Your task to perform on an android device: Do I have any events tomorrow? Image 0: 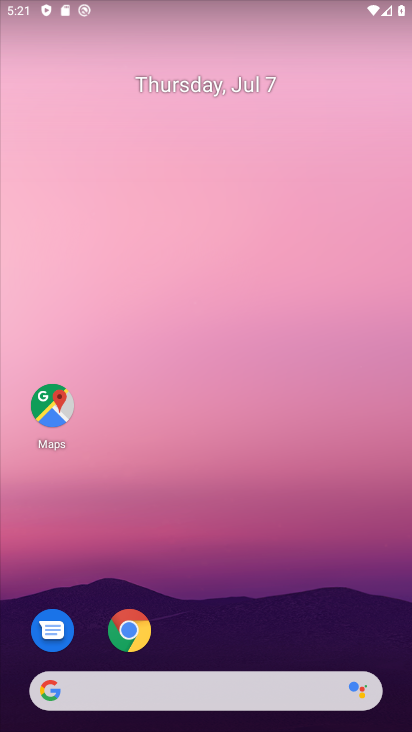
Step 0: press home button
Your task to perform on an android device: Do I have any events tomorrow? Image 1: 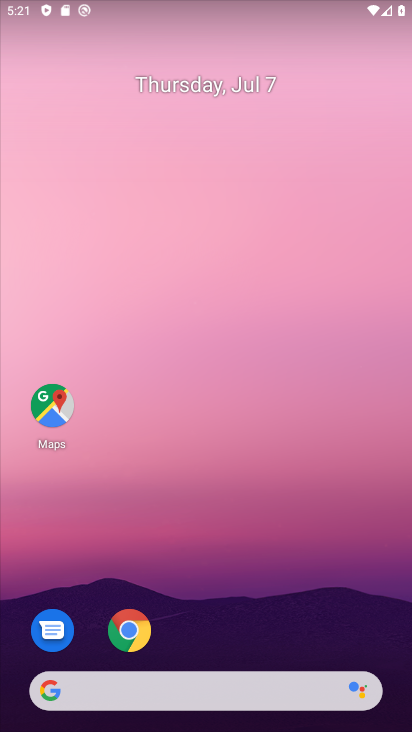
Step 1: drag from (203, 638) to (173, 53)
Your task to perform on an android device: Do I have any events tomorrow? Image 2: 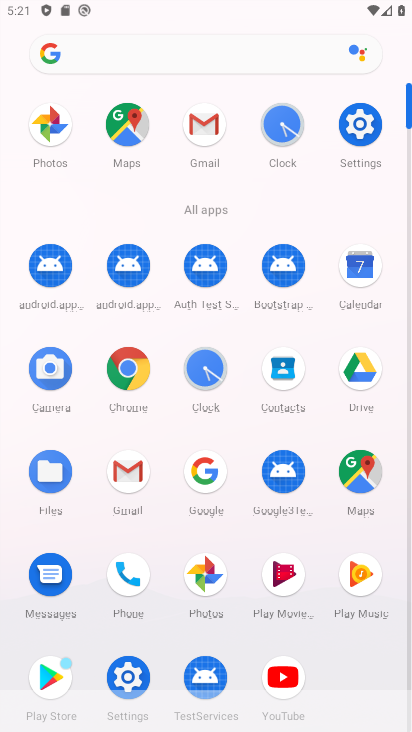
Step 2: click (353, 262)
Your task to perform on an android device: Do I have any events tomorrow? Image 3: 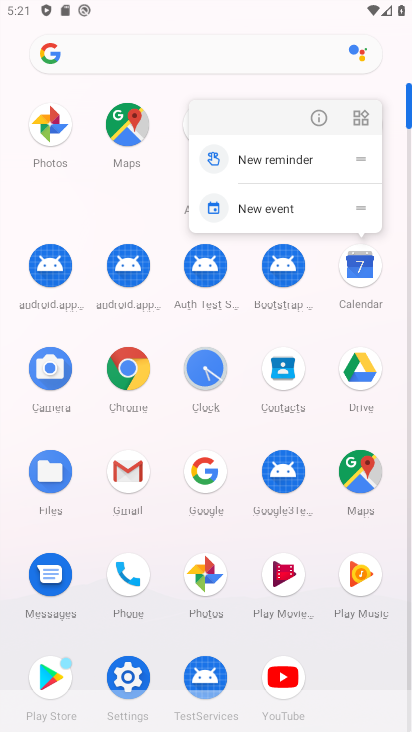
Step 3: click (358, 275)
Your task to perform on an android device: Do I have any events tomorrow? Image 4: 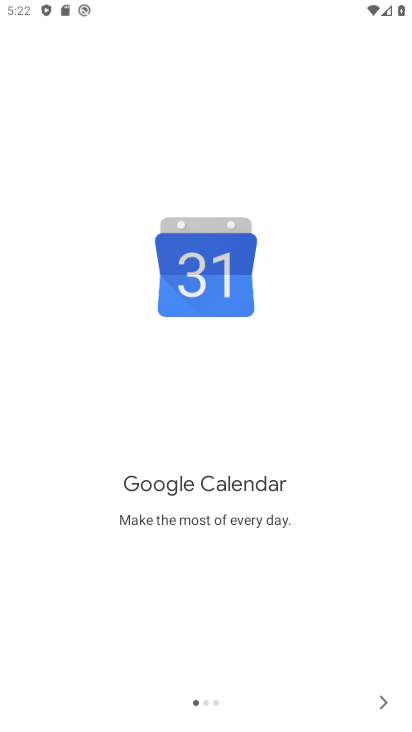
Step 4: click (385, 695)
Your task to perform on an android device: Do I have any events tomorrow? Image 5: 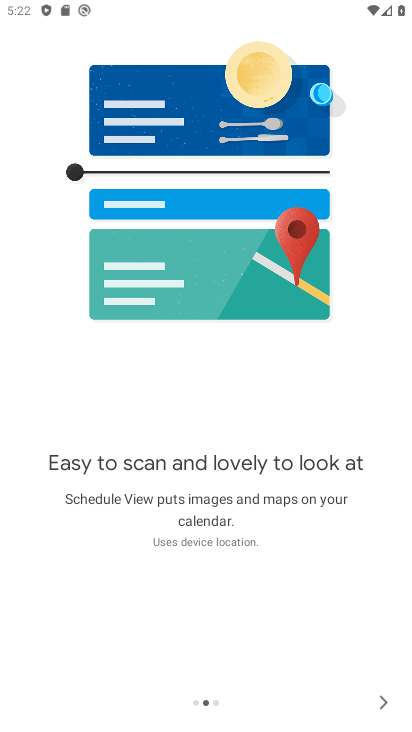
Step 5: click (382, 695)
Your task to perform on an android device: Do I have any events tomorrow? Image 6: 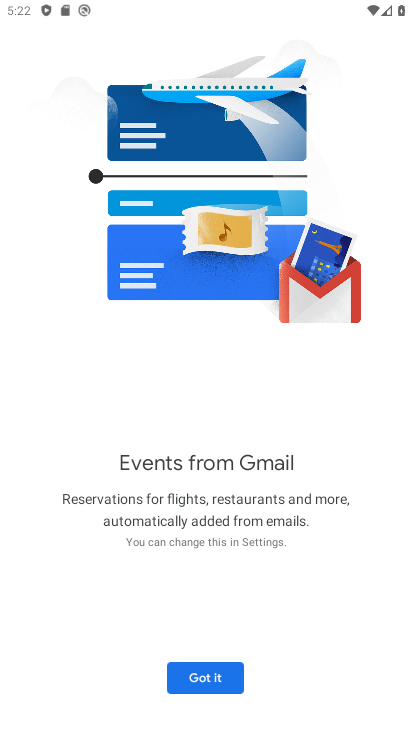
Step 6: click (224, 682)
Your task to perform on an android device: Do I have any events tomorrow? Image 7: 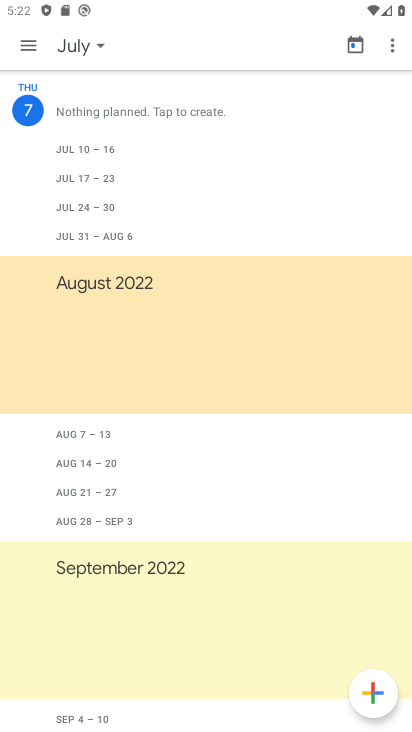
Step 7: click (100, 42)
Your task to perform on an android device: Do I have any events tomorrow? Image 8: 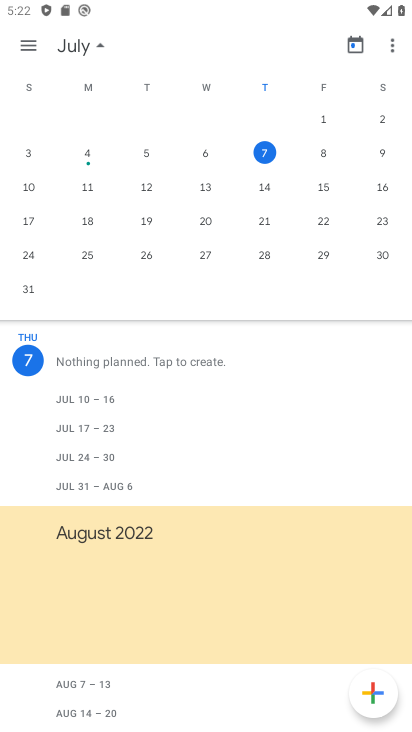
Step 8: click (321, 153)
Your task to perform on an android device: Do I have any events tomorrow? Image 9: 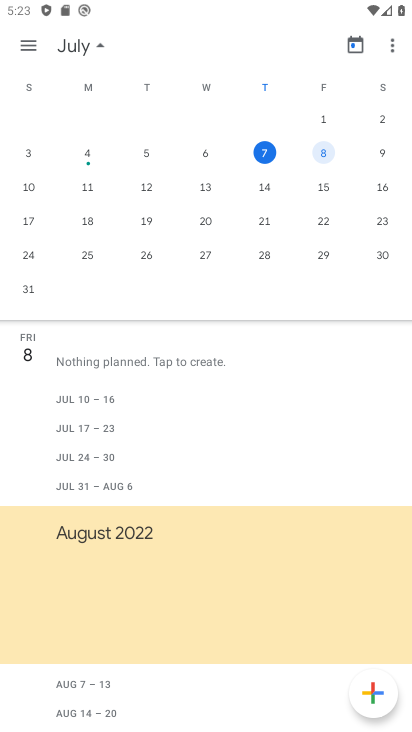
Step 9: click (321, 152)
Your task to perform on an android device: Do I have any events tomorrow? Image 10: 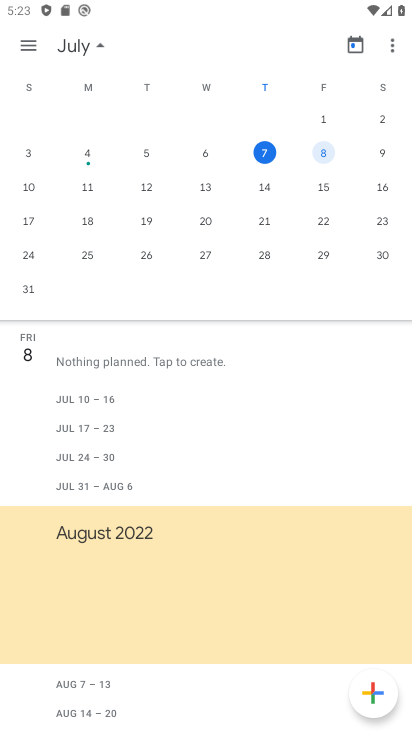
Step 10: task complete